Your task to perform on an android device: Open Amazon Image 0: 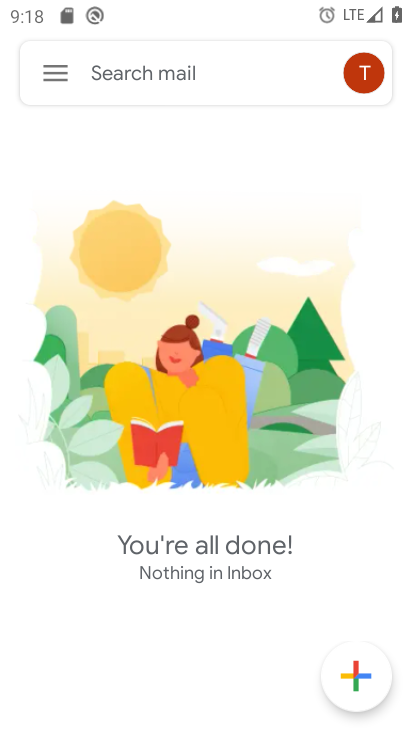
Step 0: press home button
Your task to perform on an android device: Open Amazon Image 1: 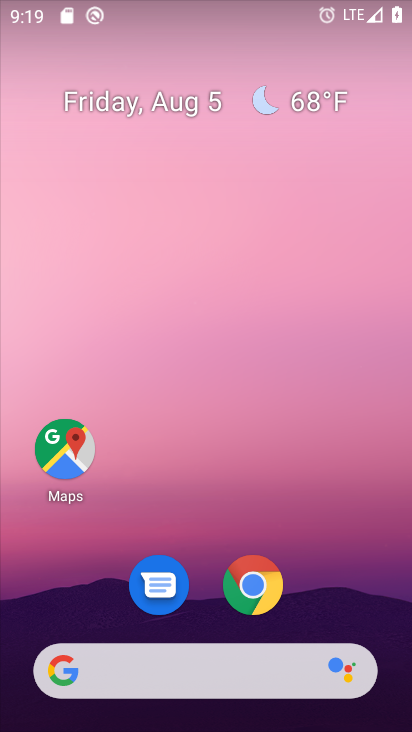
Step 1: click (259, 593)
Your task to perform on an android device: Open Amazon Image 2: 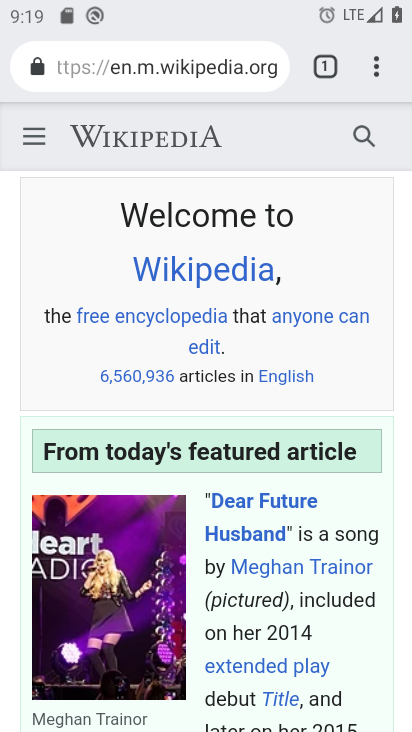
Step 2: press back button
Your task to perform on an android device: Open Amazon Image 3: 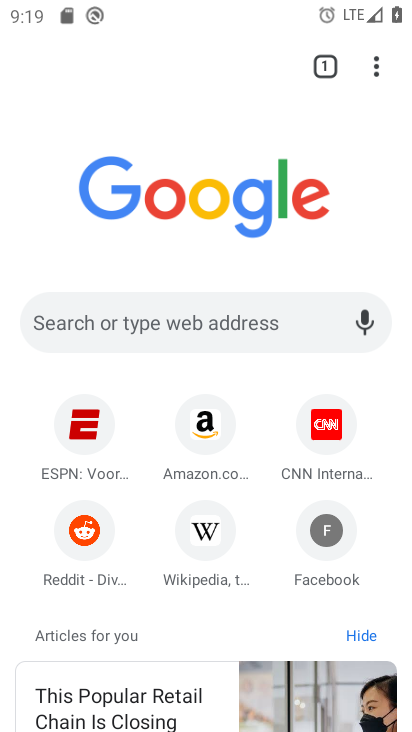
Step 3: click (217, 422)
Your task to perform on an android device: Open Amazon Image 4: 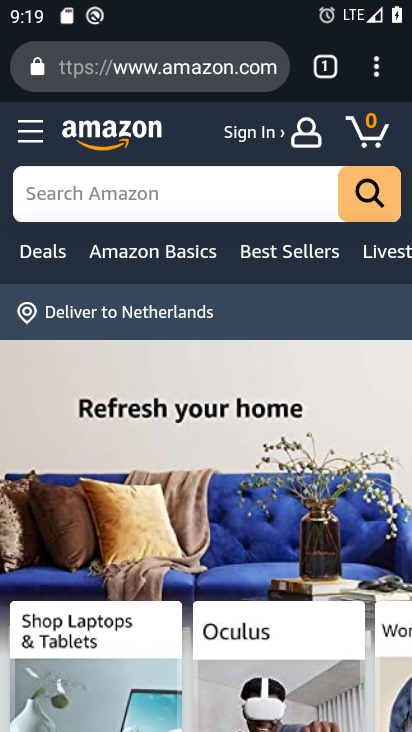
Step 4: task complete